Your task to perform on an android device: Open Google Maps Image 0: 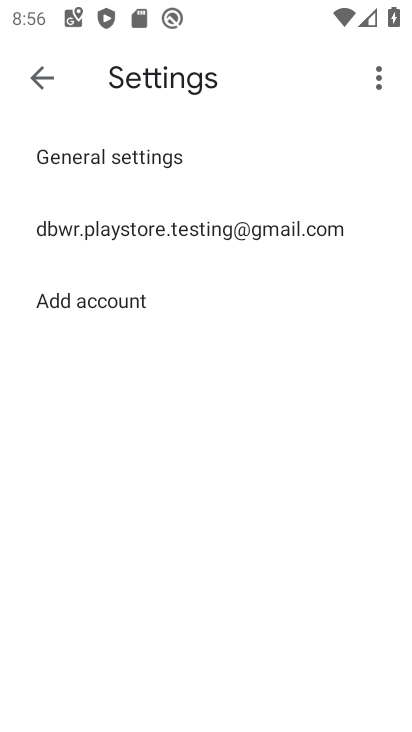
Step 0: press home button
Your task to perform on an android device: Open Google Maps Image 1: 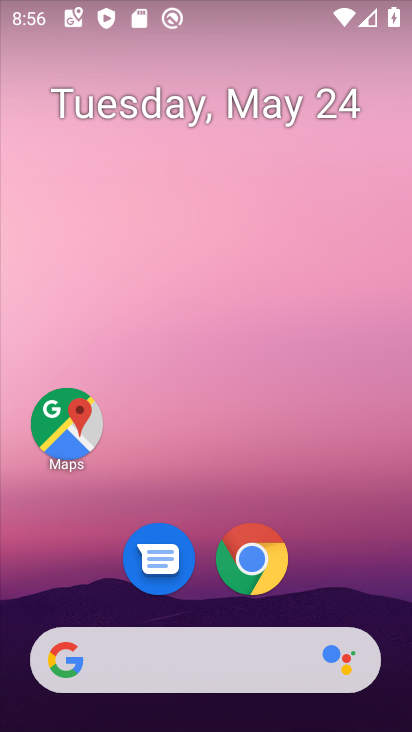
Step 1: click (65, 449)
Your task to perform on an android device: Open Google Maps Image 2: 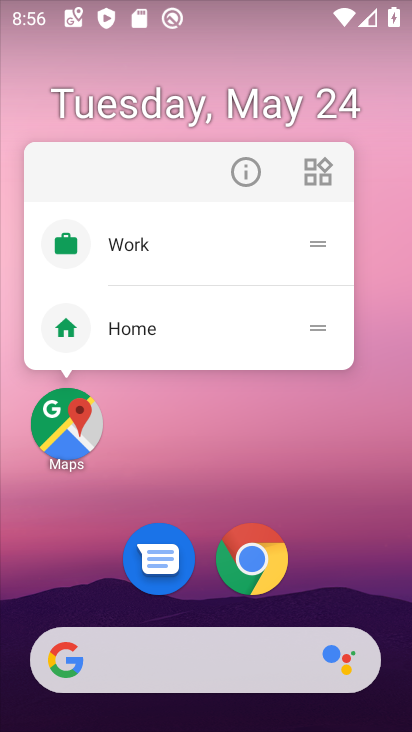
Step 2: click (76, 450)
Your task to perform on an android device: Open Google Maps Image 3: 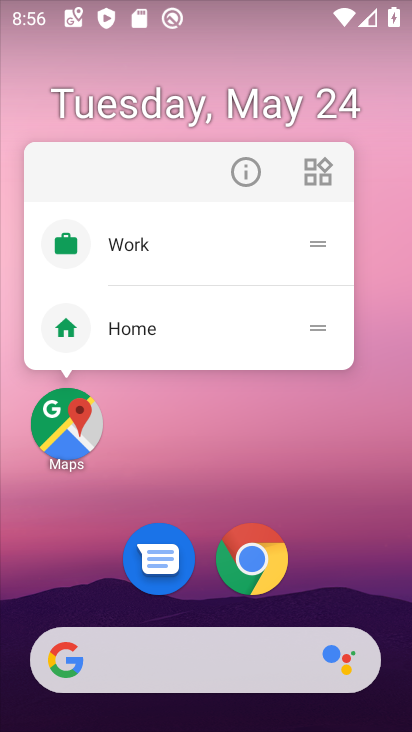
Step 3: click (50, 382)
Your task to perform on an android device: Open Google Maps Image 4: 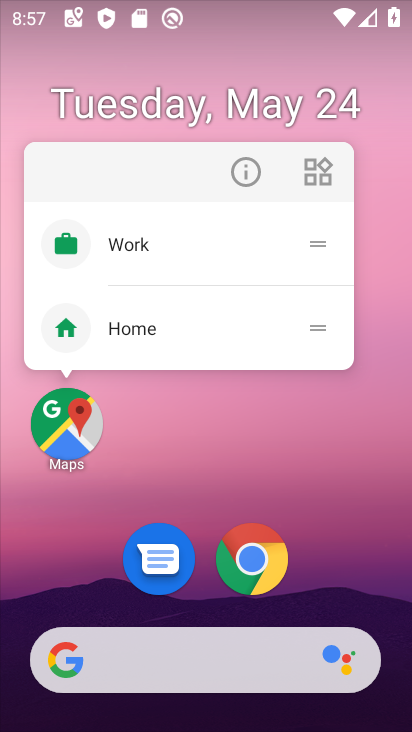
Step 4: click (83, 419)
Your task to perform on an android device: Open Google Maps Image 5: 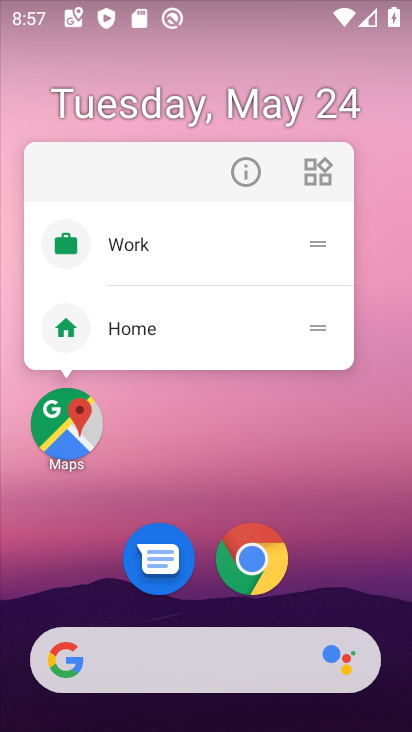
Step 5: click (38, 425)
Your task to perform on an android device: Open Google Maps Image 6: 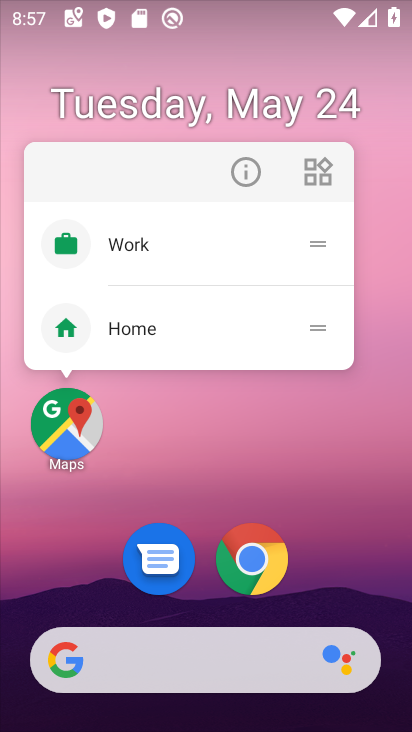
Step 6: click (38, 425)
Your task to perform on an android device: Open Google Maps Image 7: 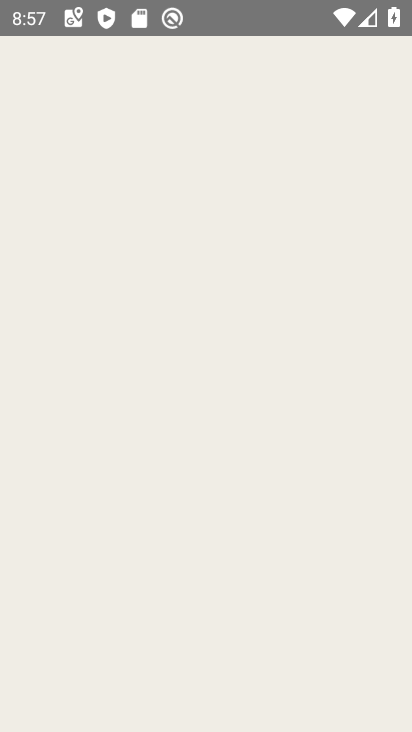
Step 7: task complete